Your task to perform on an android device: set an alarm Image 0: 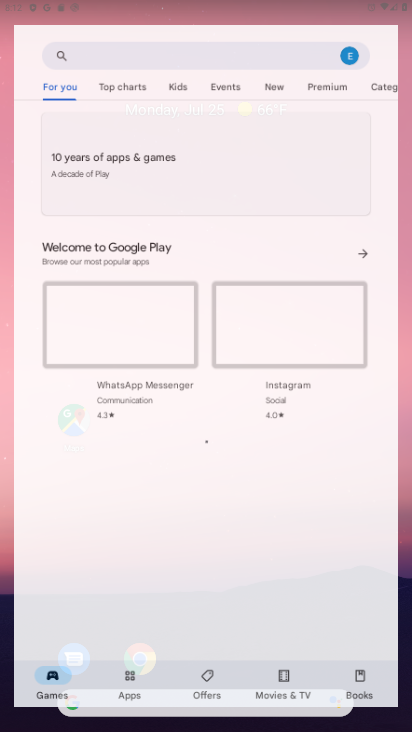
Step 0: drag from (232, 680) to (173, 20)
Your task to perform on an android device: set an alarm Image 1: 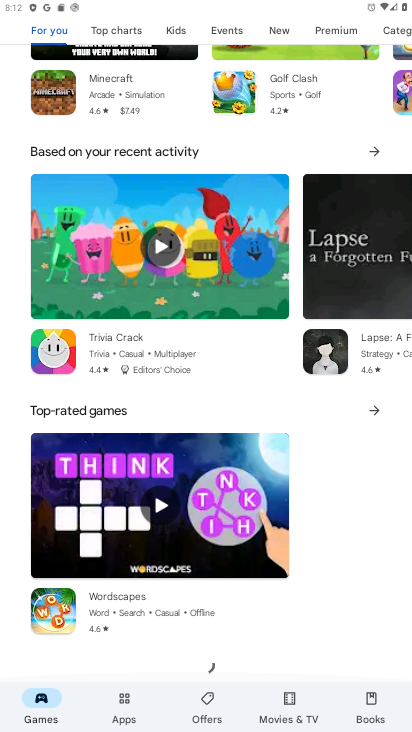
Step 1: press home button
Your task to perform on an android device: set an alarm Image 2: 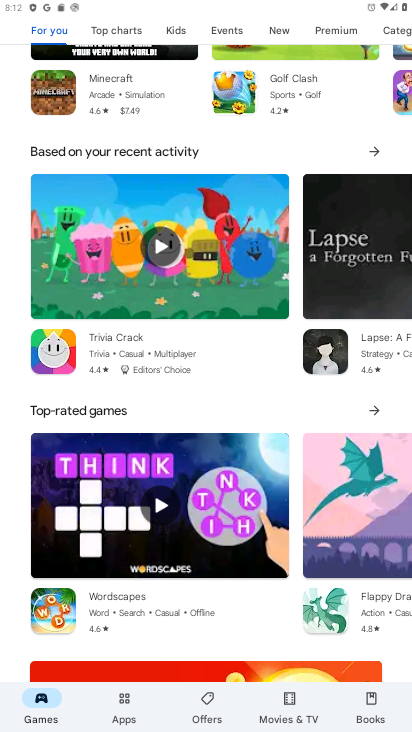
Step 2: click (16, 730)
Your task to perform on an android device: set an alarm Image 3: 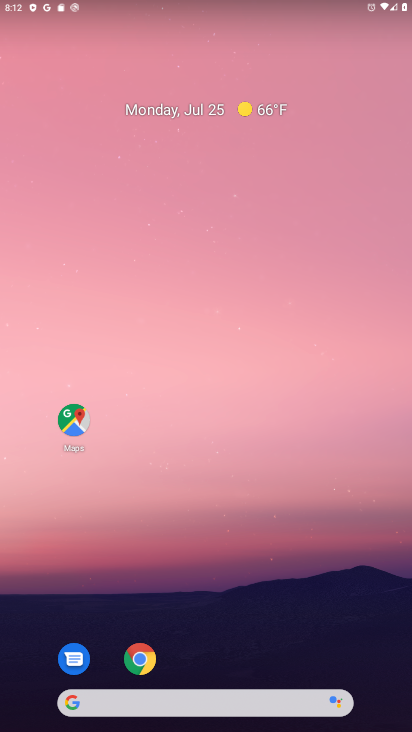
Step 3: drag from (200, 672) to (133, 157)
Your task to perform on an android device: set an alarm Image 4: 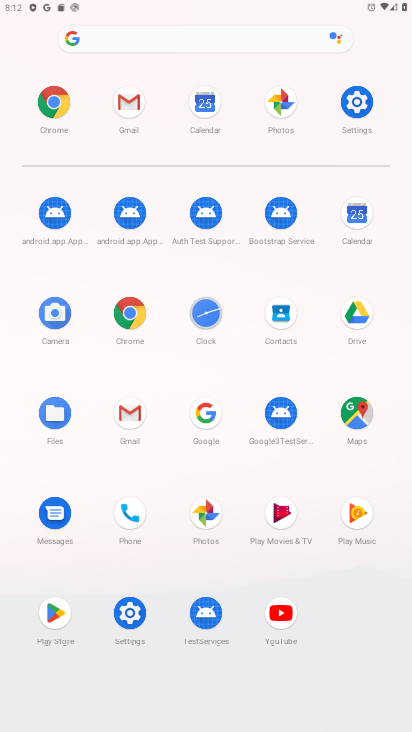
Step 4: click (205, 323)
Your task to perform on an android device: set an alarm Image 5: 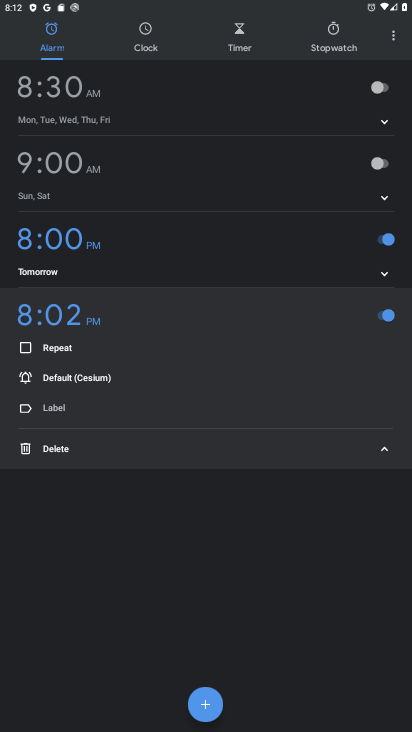
Step 5: click (209, 713)
Your task to perform on an android device: set an alarm Image 6: 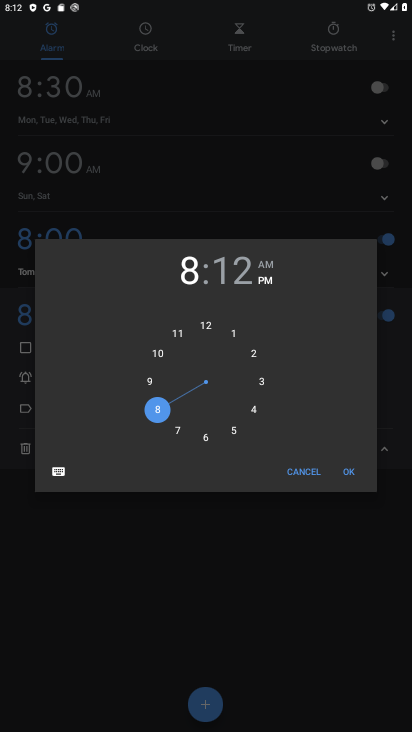
Step 6: click (346, 471)
Your task to perform on an android device: set an alarm Image 7: 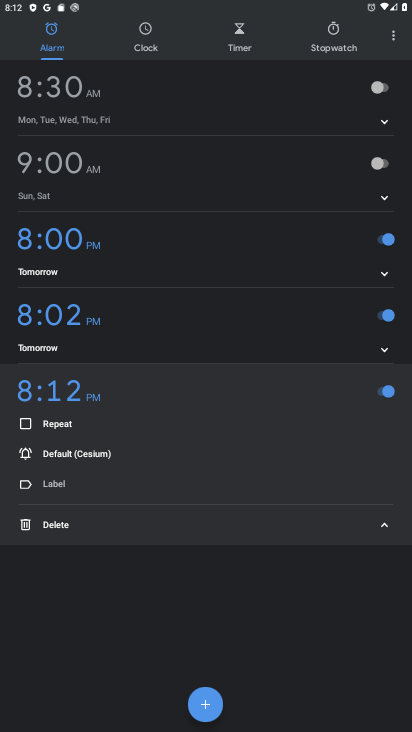
Step 7: task complete